Your task to perform on an android device: Open calendar and show me the second week of next month Image 0: 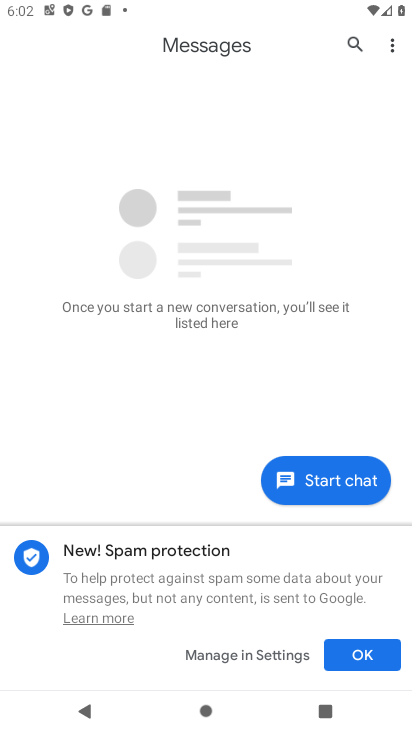
Step 0: press home button
Your task to perform on an android device: Open calendar and show me the second week of next month Image 1: 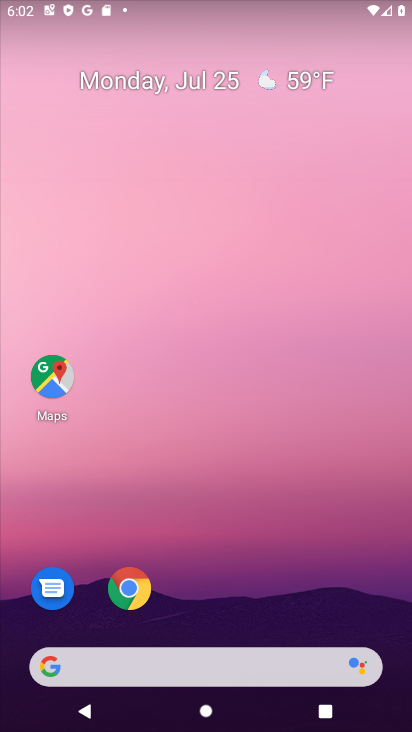
Step 1: drag from (277, 547) to (345, 166)
Your task to perform on an android device: Open calendar and show me the second week of next month Image 2: 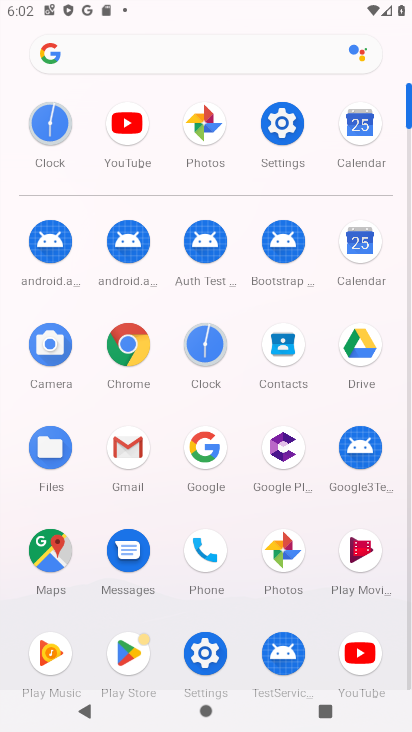
Step 2: click (361, 257)
Your task to perform on an android device: Open calendar and show me the second week of next month Image 3: 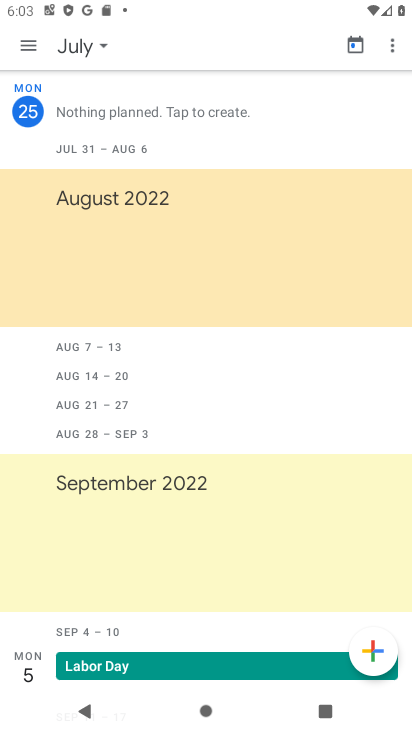
Step 3: task complete